Your task to perform on an android device: toggle show notifications on the lock screen Image 0: 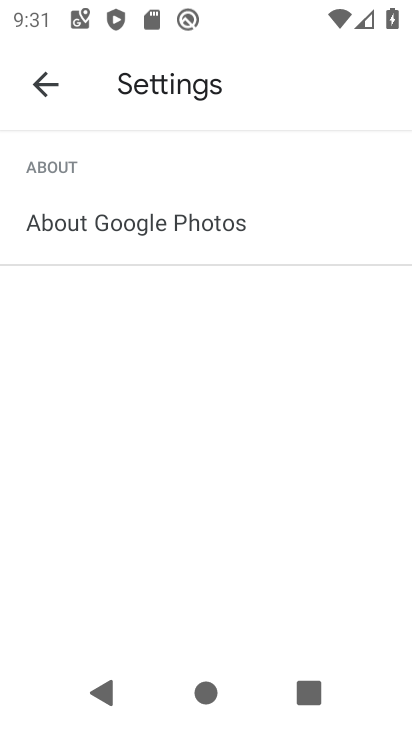
Step 0: press home button
Your task to perform on an android device: toggle show notifications on the lock screen Image 1: 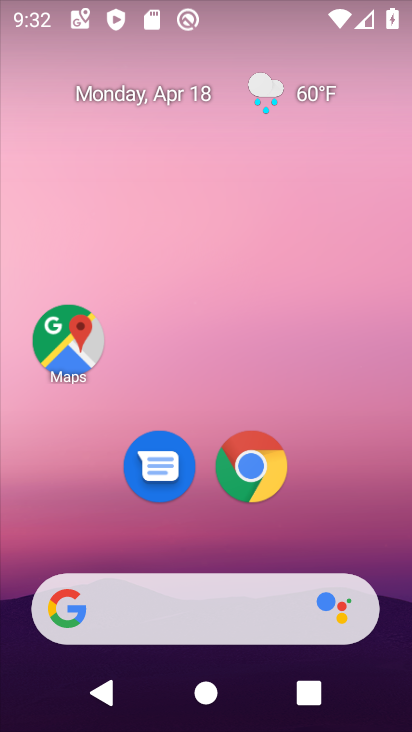
Step 1: drag from (272, 572) to (270, 138)
Your task to perform on an android device: toggle show notifications on the lock screen Image 2: 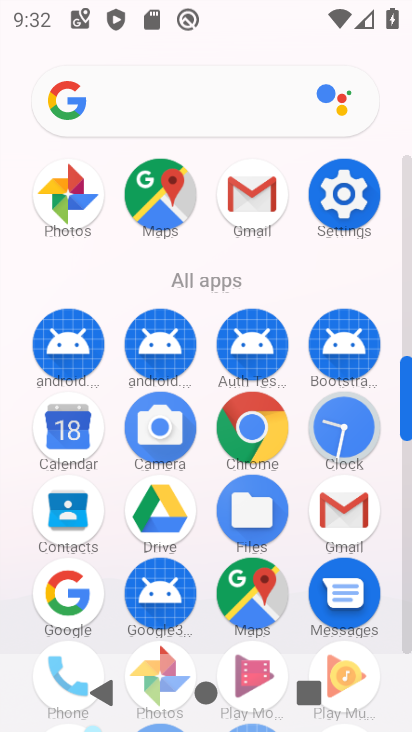
Step 2: drag from (291, 545) to (309, 418)
Your task to perform on an android device: toggle show notifications on the lock screen Image 3: 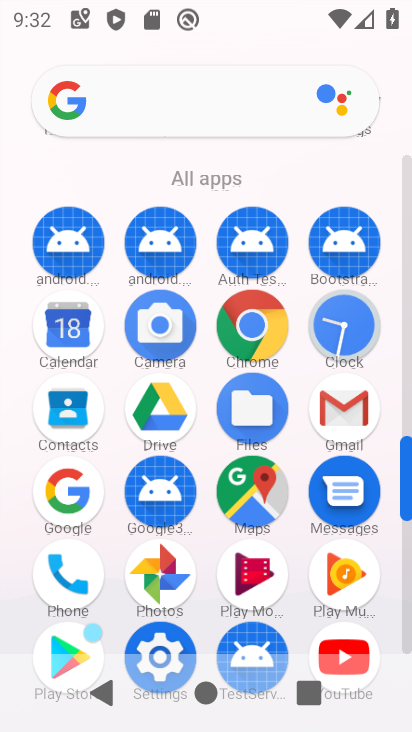
Step 3: click (173, 640)
Your task to perform on an android device: toggle show notifications on the lock screen Image 4: 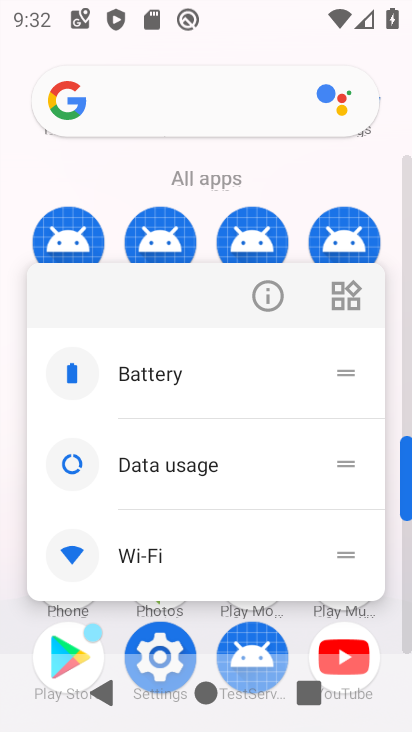
Step 4: click (172, 634)
Your task to perform on an android device: toggle show notifications on the lock screen Image 5: 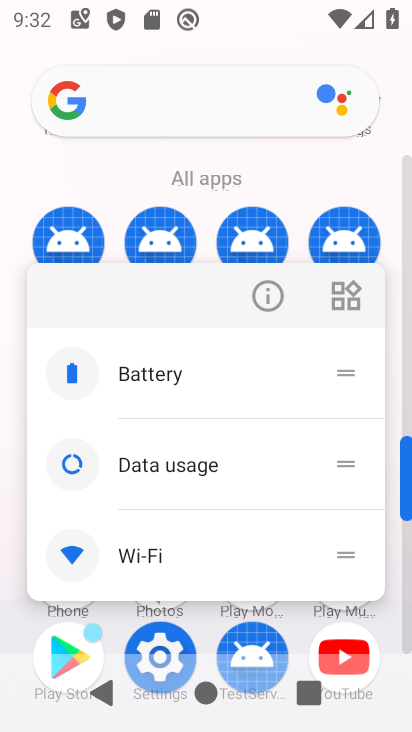
Step 5: click (172, 634)
Your task to perform on an android device: toggle show notifications on the lock screen Image 6: 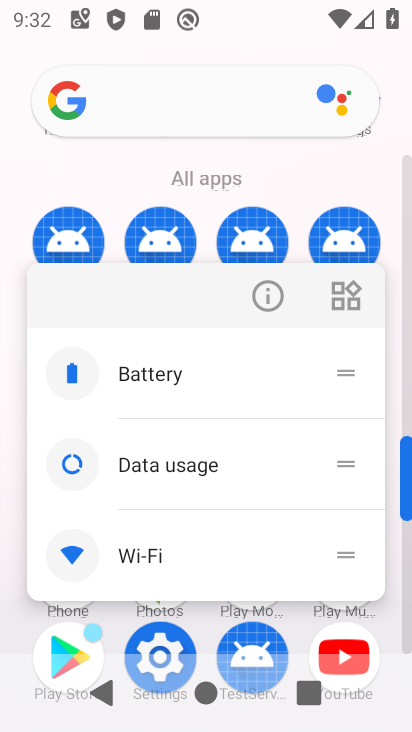
Step 6: click (172, 634)
Your task to perform on an android device: toggle show notifications on the lock screen Image 7: 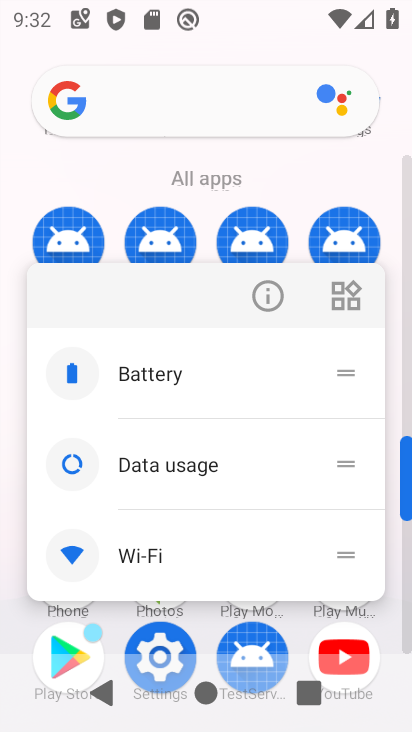
Step 7: click (166, 641)
Your task to perform on an android device: toggle show notifications on the lock screen Image 8: 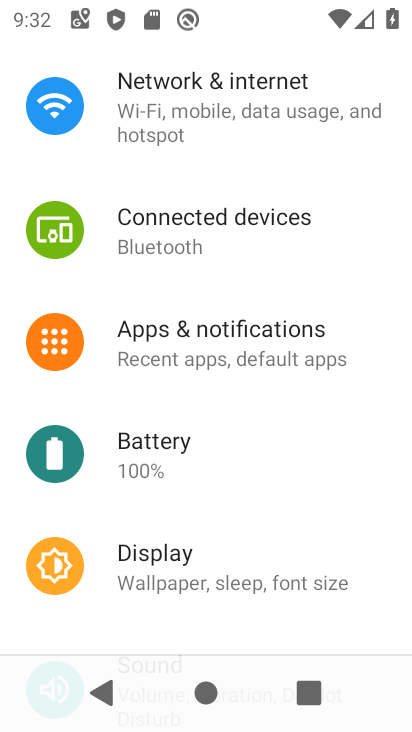
Step 8: drag from (175, 579) to (170, 257)
Your task to perform on an android device: toggle show notifications on the lock screen Image 9: 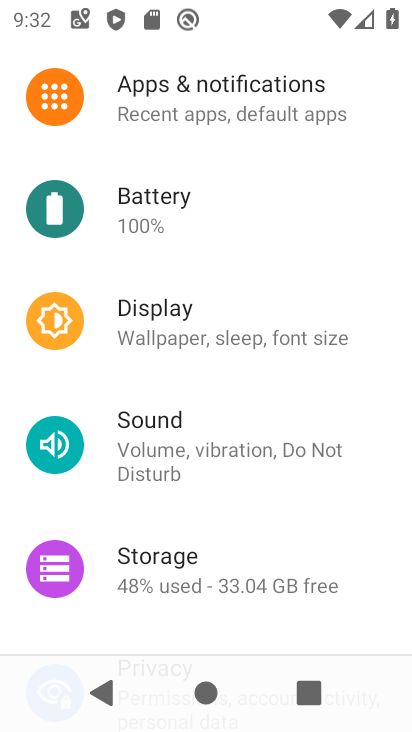
Step 9: click (189, 106)
Your task to perform on an android device: toggle show notifications on the lock screen Image 10: 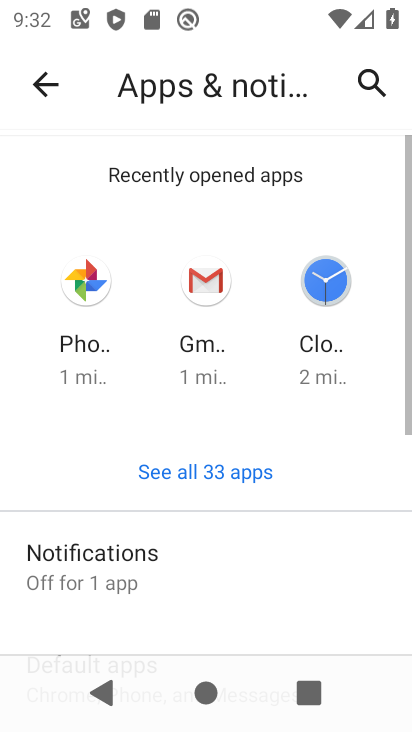
Step 10: drag from (218, 600) to (267, 121)
Your task to perform on an android device: toggle show notifications on the lock screen Image 11: 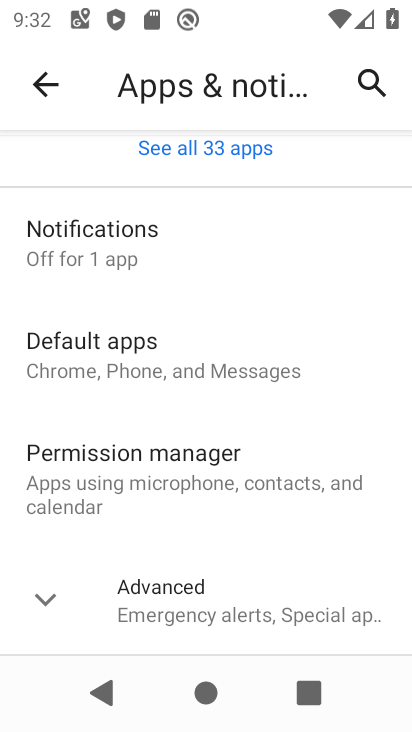
Step 11: click (170, 247)
Your task to perform on an android device: toggle show notifications on the lock screen Image 12: 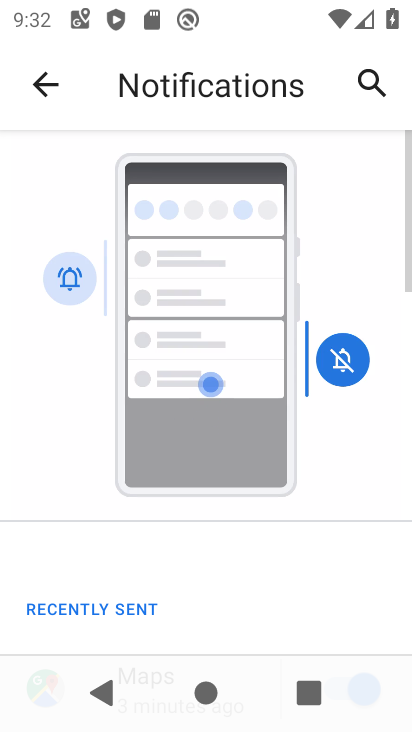
Step 12: drag from (156, 590) to (194, 182)
Your task to perform on an android device: toggle show notifications on the lock screen Image 13: 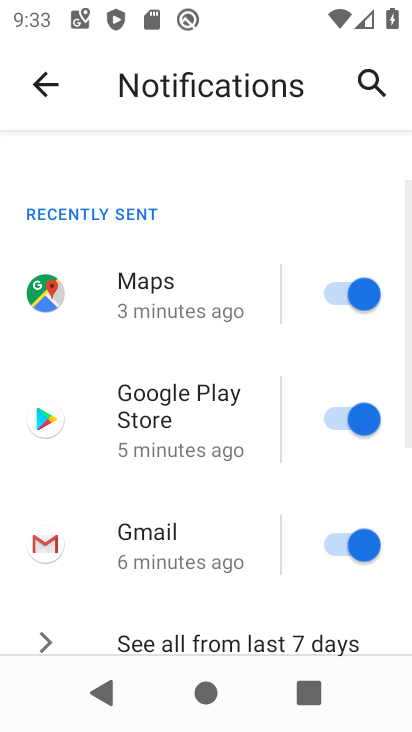
Step 13: drag from (200, 547) to (223, 234)
Your task to perform on an android device: toggle show notifications on the lock screen Image 14: 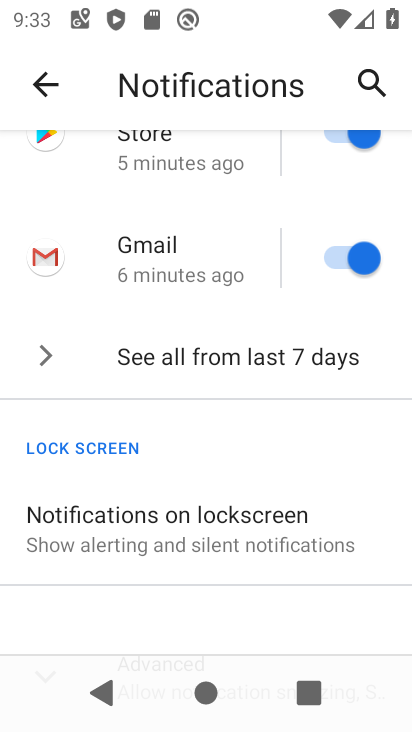
Step 14: click (215, 528)
Your task to perform on an android device: toggle show notifications on the lock screen Image 15: 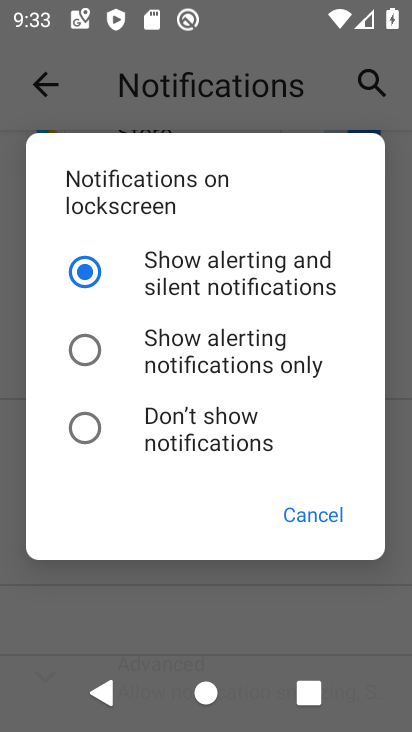
Step 15: click (143, 437)
Your task to perform on an android device: toggle show notifications on the lock screen Image 16: 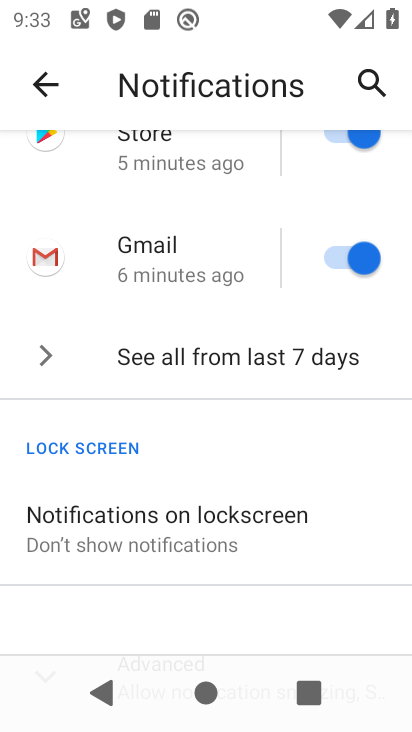
Step 16: task complete